Your task to perform on an android device: Open Google Chrome Image 0: 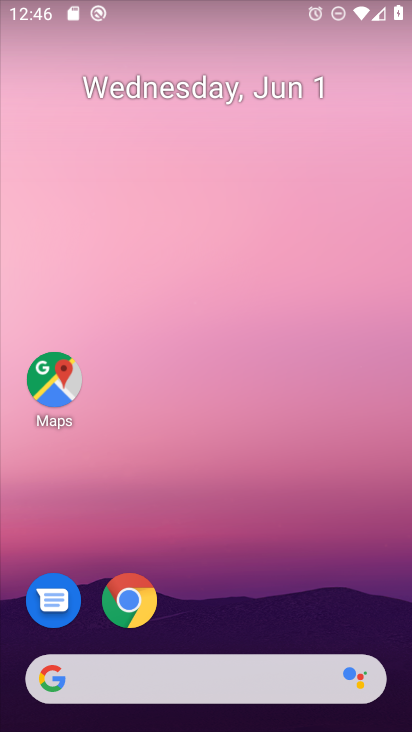
Step 0: click (138, 599)
Your task to perform on an android device: Open Google Chrome Image 1: 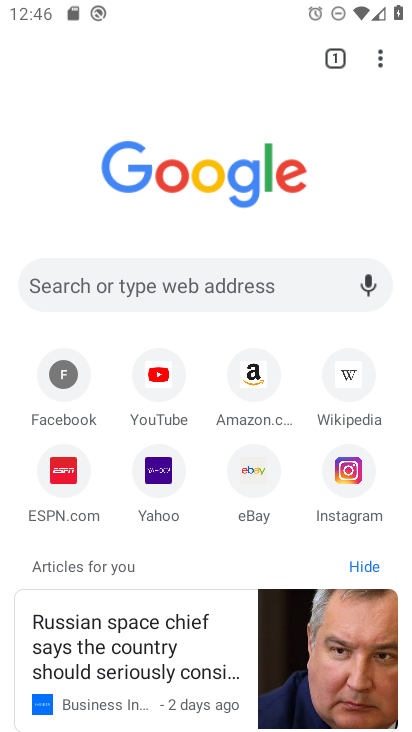
Step 1: task complete